Your task to perform on an android device: check out phone information Image 0: 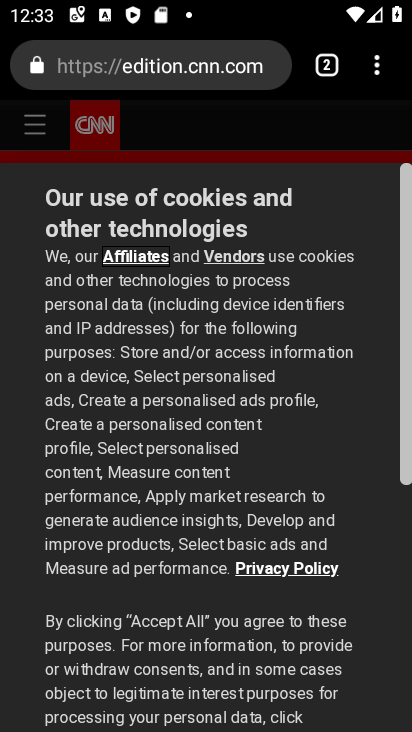
Step 0: press home button
Your task to perform on an android device: check out phone information Image 1: 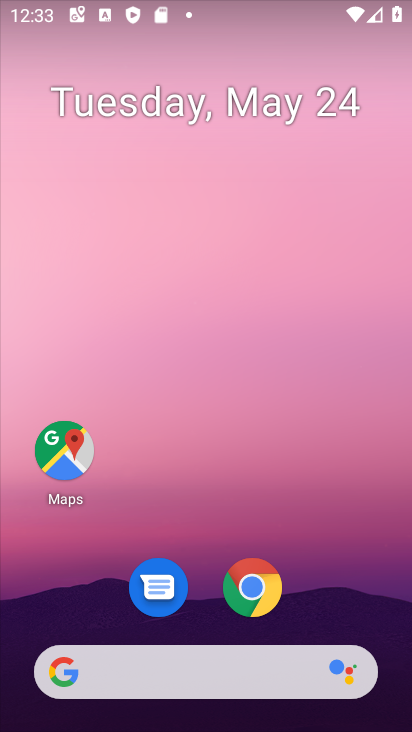
Step 1: drag from (234, 727) to (192, 24)
Your task to perform on an android device: check out phone information Image 2: 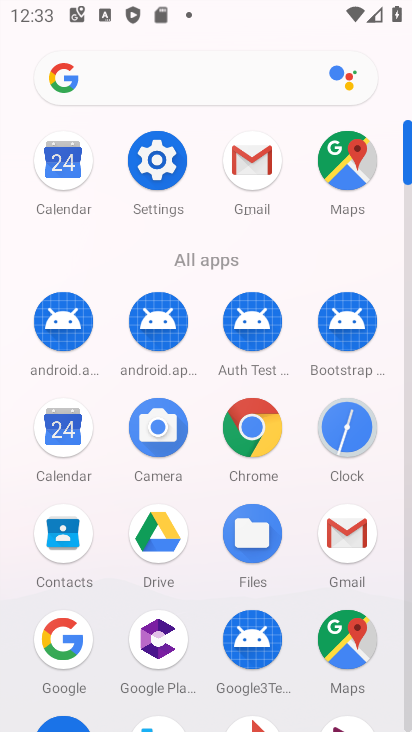
Step 2: click (149, 166)
Your task to perform on an android device: check out phone information Image 3: 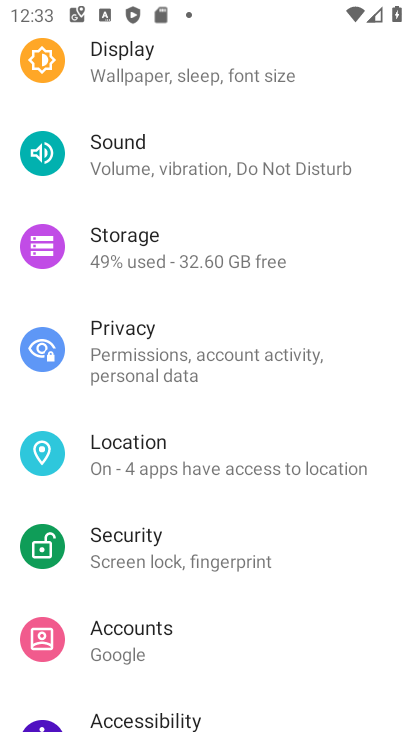
Step 3: drag from (272, 687) to (236, 117)
Your task to perform on an android device: check out phone information Image 4: 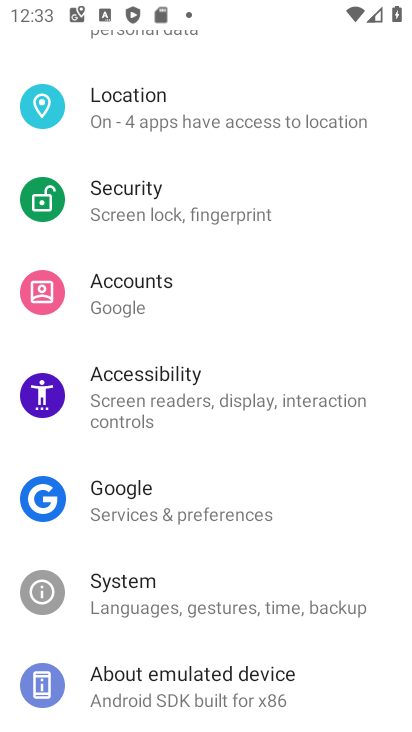
Step 4: click (222, 710)
Your task to perform on an android device: check out phone information Image 5: 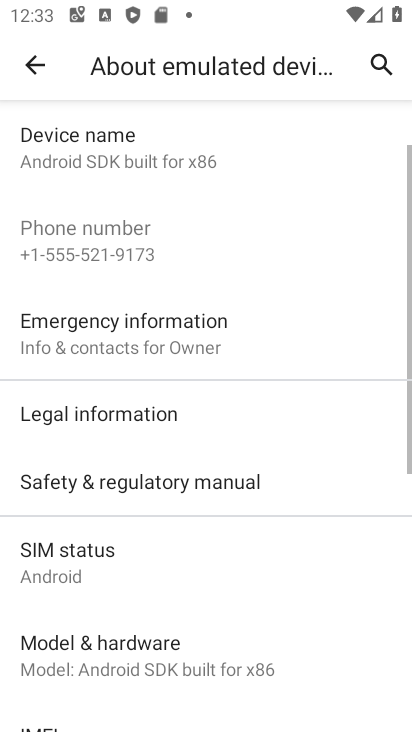
Step 5: task complete